Your task to perform on an android device: Open privacy settings Image 0: 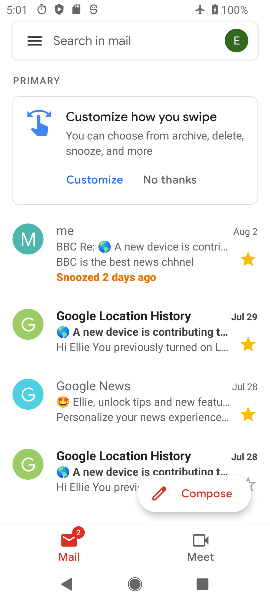
Step 0: press back button
Your task to perform on an android device: Open privacy settings Image 1: 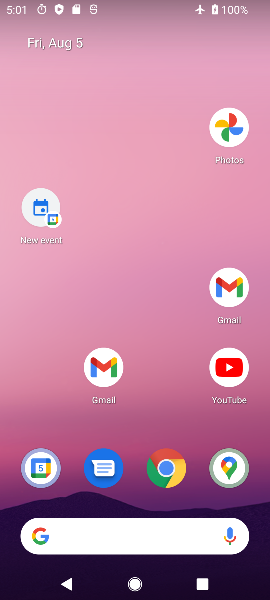
Step 1: drag from (186, 554) to (21, 62)
Your task to perform on an android device: Open privacy settings Image 2: 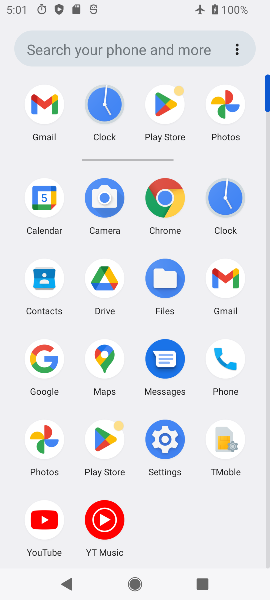
Step 2: click (163, 444)
Your task to perform on an android device: Open privacy settings Image 3: 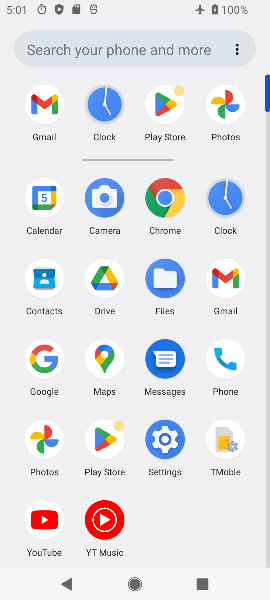
Step 3: click (162, 444)
Your task to perform on an android device: Open privacy settings Image 4: 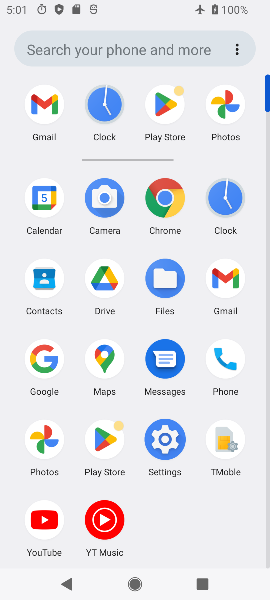
Step 4: click (162, 444)
Your task to perform on an android device: Open privacy settings Image 5: 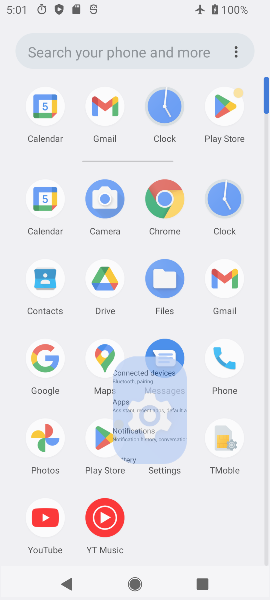
Step 5: click (165, 445)
Your task to perform on an android device: Open privacy settings Image 6: 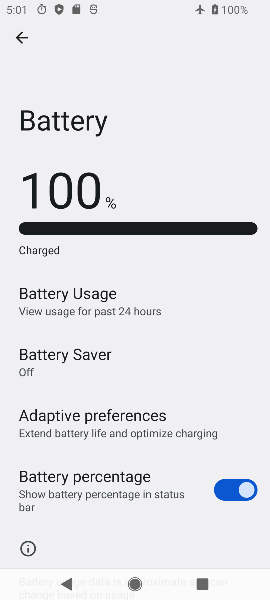
Step 6: click (17, 37)
Your task to perform on an android device: Open privacy settings Image 7: 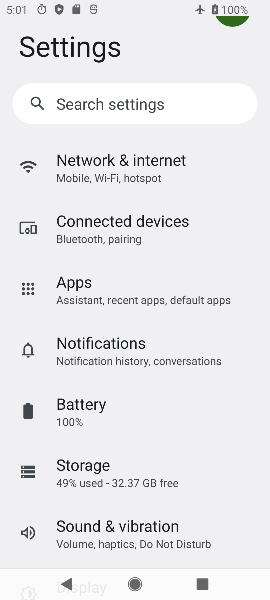
Step 7: click (91, 159)
Your task to perform on an android device: Open privacy settings Image 8: 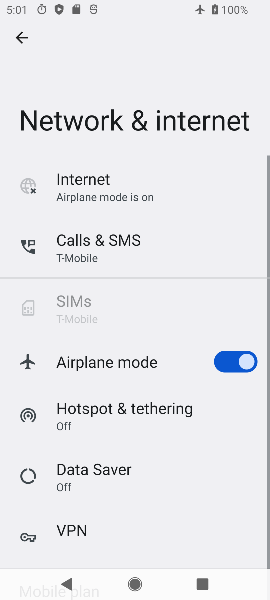
Step 8: click (109, 189)
Your task to perform on an android device: Open privacy settings Image 9: 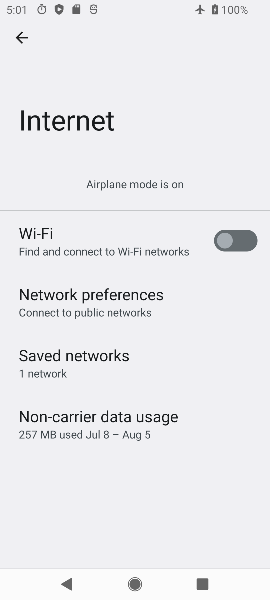
Step 9: click (226, 242)
Your task to perform on an android device: Open privacy settings Image 10: 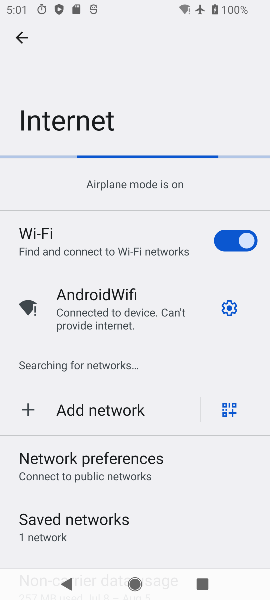
Step 10: click (22, 38)
Your task to perform on an android device: Open privacy settings Image 11: 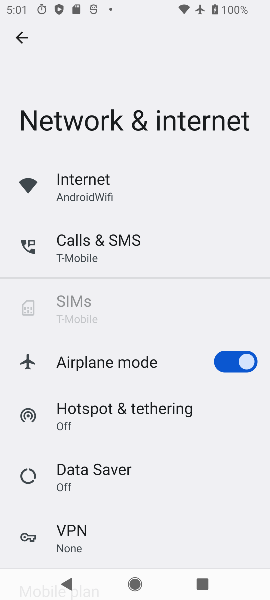
Step 11: click (14, 39)
Your task to perform on an android device: Open privacy settings Image 12: 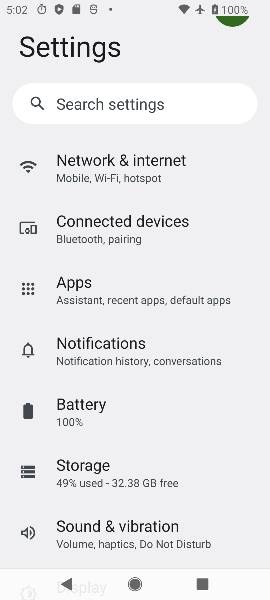
Step 12: drag from (103, 417) to (108, 198)
Your task to perform on an android device: Open privacy settings Image 13: 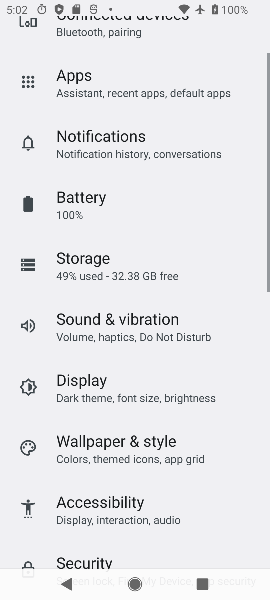
Step 13: drag from (128, 390) to (144, 254)
Your task to perform on an android device: Open privacy settings Image 14: 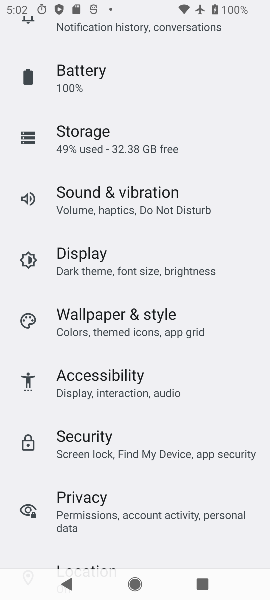
Step 14: drag from (114, 428) to (89, 96)
Your task to perform on an android device: Open privacy settings Image 15: 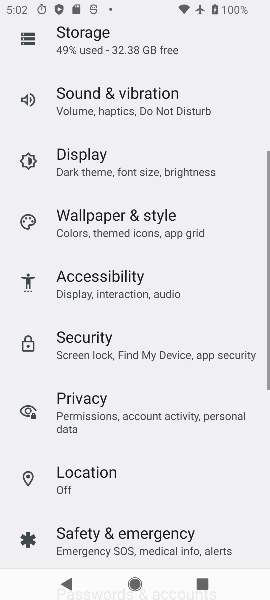
Step 15: drag from (106, 285) to (110, 107)
Your task to perform on an android device: Open privacy settings Image 16: 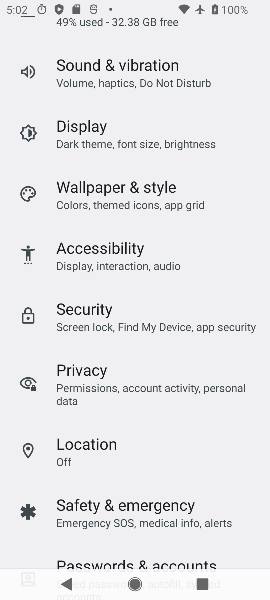
Step 16: click (91, 502)
Your task to perform on an android device: Open privacy settings Image 17: 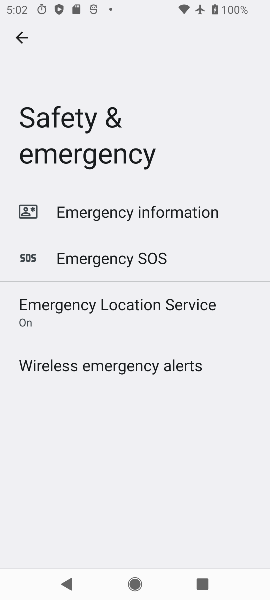
Step 17: click (104, 381)
Your task to perform on an android device: Open privacy settings Image 18: 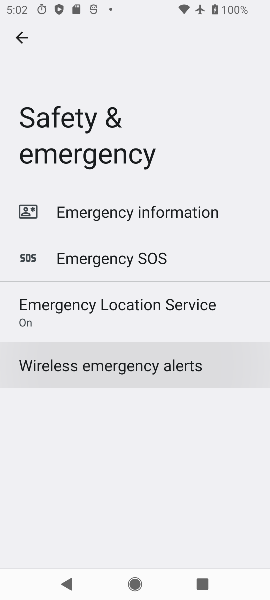
Step 18: click (88, 389)
Your task to perform on an android device: Open privacy settings Image 19: 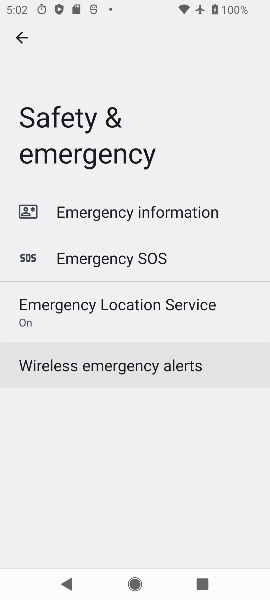
Step 19: click (88, 389)
Your task to perform on an android device: Open privacy settings Image 20: 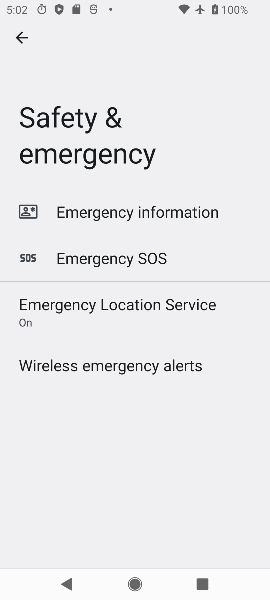
Step 20: click (24, 35)
Your task to perform on an android device: Open privacy settings Image 21: 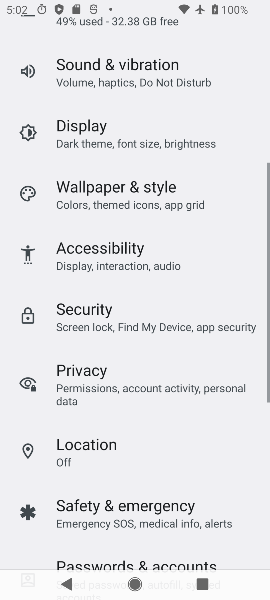
Step 21: task complete